Your task to perform on an android device: Go to sound settings Image 0: 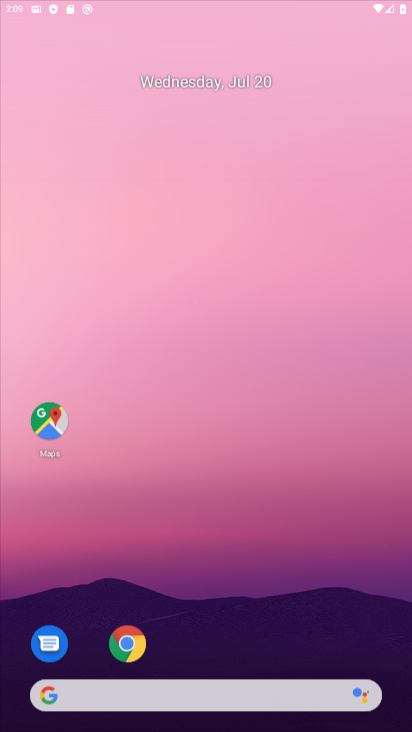
Step 0: drag from (336, 444) to (394, 102)
Your task to perform on an android device: Go to sound settings Image 1: 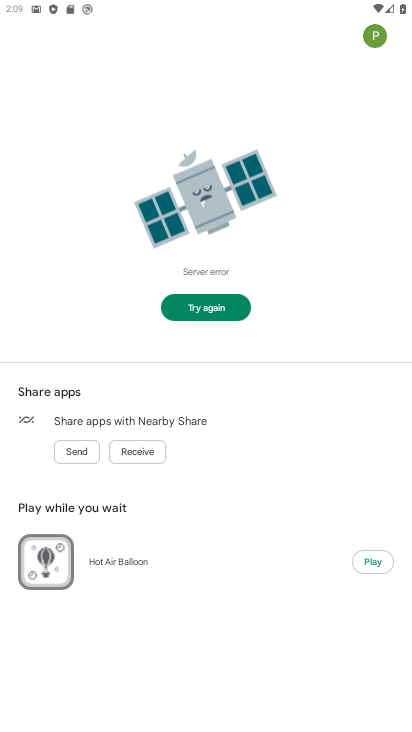
Step 1: press home button
Your task to perform on an android device: Go to sound settings Image 2: 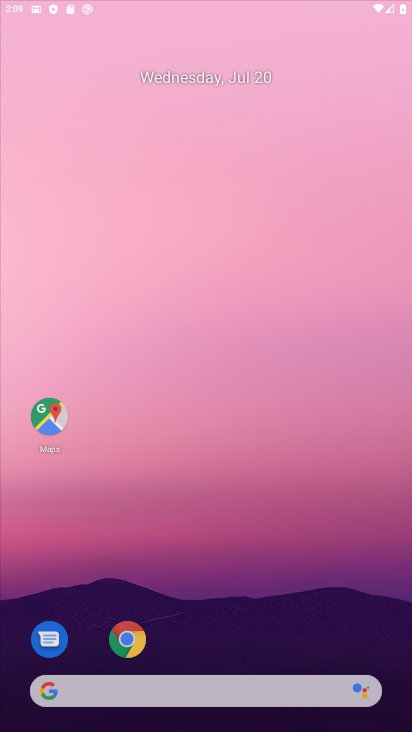
Step 2: drag from (248, 697) to (240, 219)
Your task to perform on an android device: Go to sound settings Image 3: 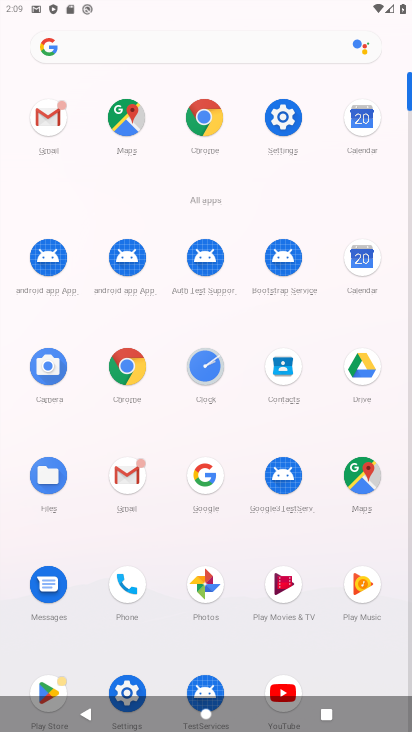
Step 3: click (301, 143)
Your task to perform on an android device: Go to sound settings Image 4: 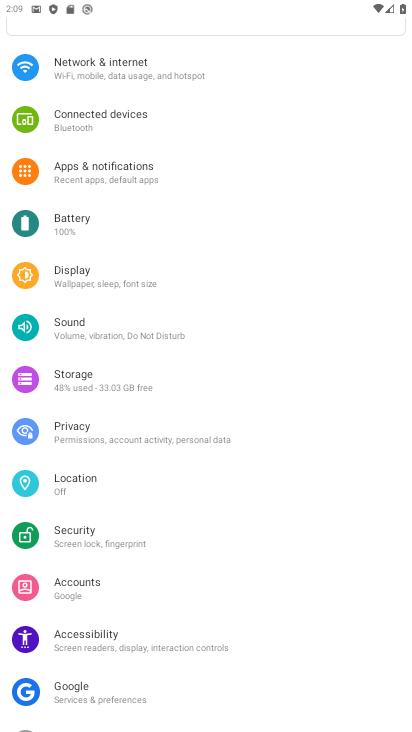
Step 4: click (58, 318)
Your task to perform on an android device: Go to sound settings Image 5: 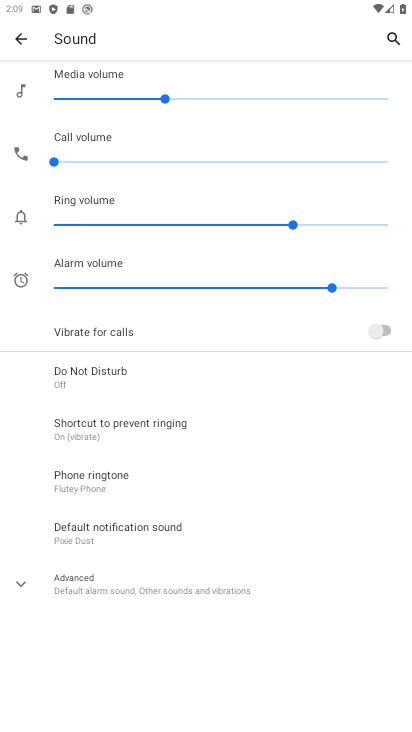
Step 5: task complete